Your task to perform on an android device: Open calendar and show me the second week of next month Image 0: 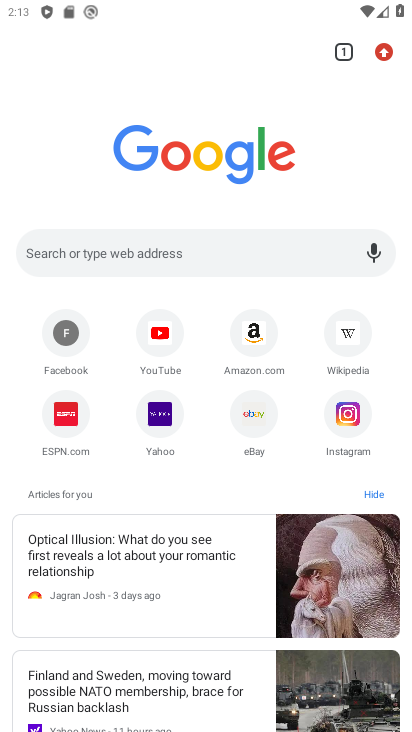
Step 0: press back button
Your task to perform on an android device: Open calendar and show me the second week of next month Image 1: 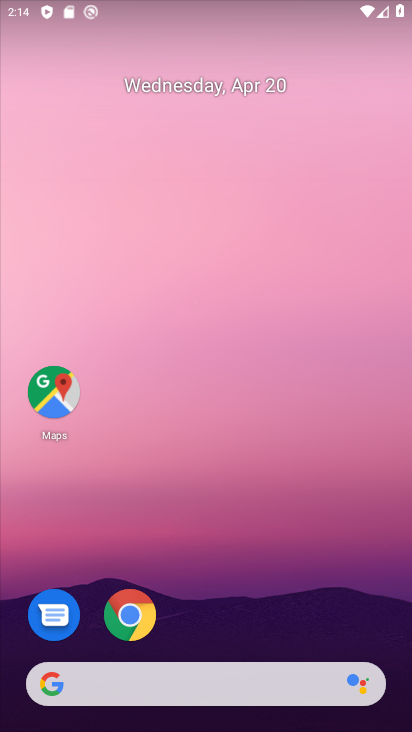
Step 1: click (242, 474)
Your task to perform on an android device: Open calendar and show me the second week of next month Image 2: 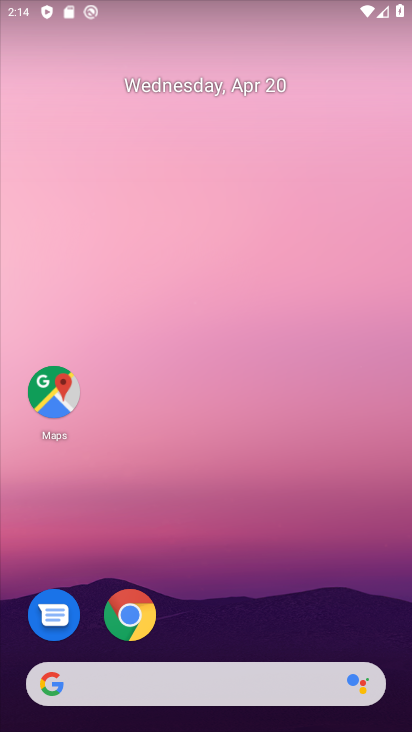
Step 2: drag from (221, 616) to (317, 133)
Your task to perform on an android device: Open calendar and show me the second week of next month Image 3: 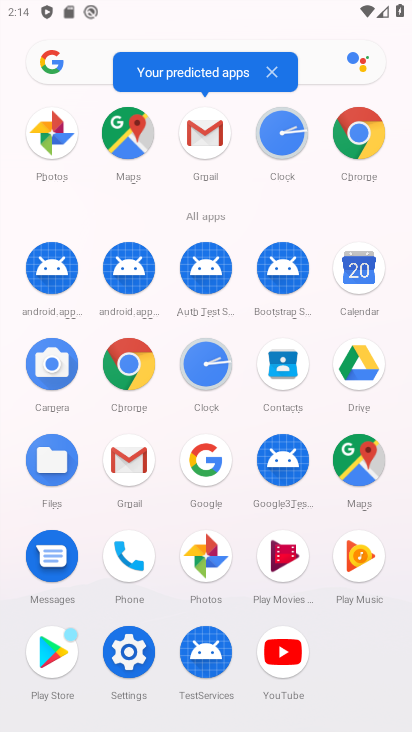
Step 3: click (356, 279)
Your task to perform on an android device: Open calendar and show me the second week of next month Image 4: 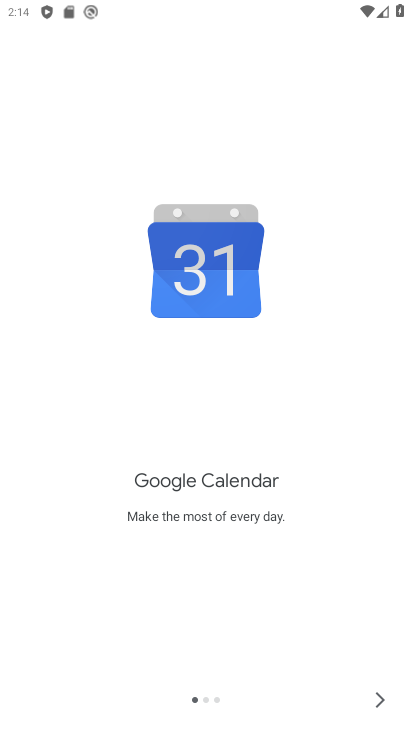
Step 4: click (391, 689)
Your task to perform on an android device: Open calendar and show me the second week of next month Image 5: 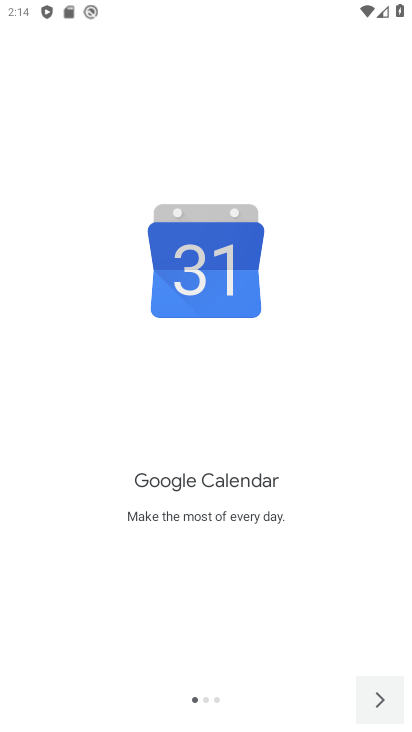
Step 5: click (391, 689)
Your task to perform on an android device: Open calendar and show me the second week of next month Image 6: 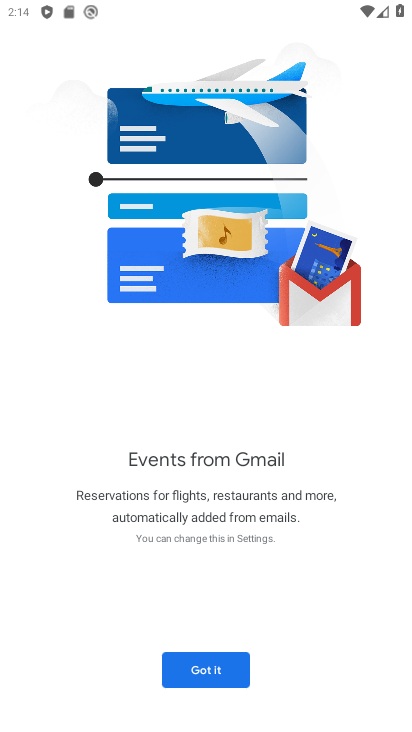
Step 6: click (198, 667)
Your task to perform on an android device: Open calendar and show me the second week of next month Image 7: 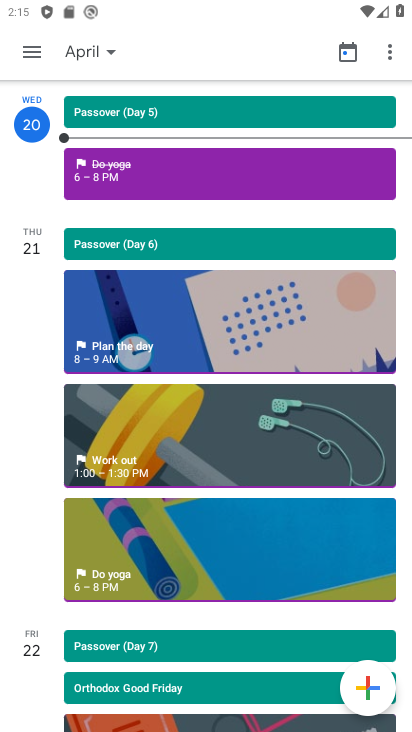
Step 7: click (97, 56)
Your task to perform on an android device: Open calendar and show me the second week of next month Image 8: 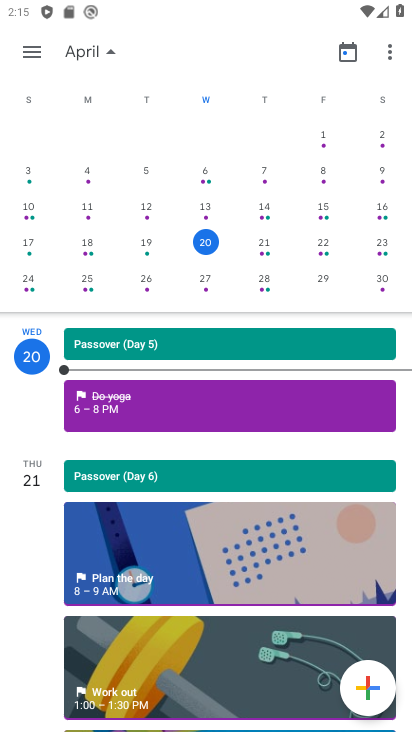
Step 8: drag from (348, 237) to (13, 227)
Your task to perform on an android device: Open calendar and show me the second week of next month Image 9: 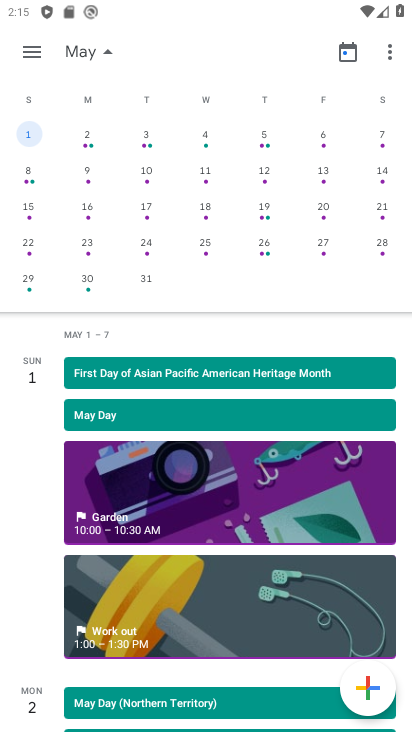
Step 9: click (29, 177)
Your task to perform on an android device: Open calendar and show me the second week of next month Image 10: 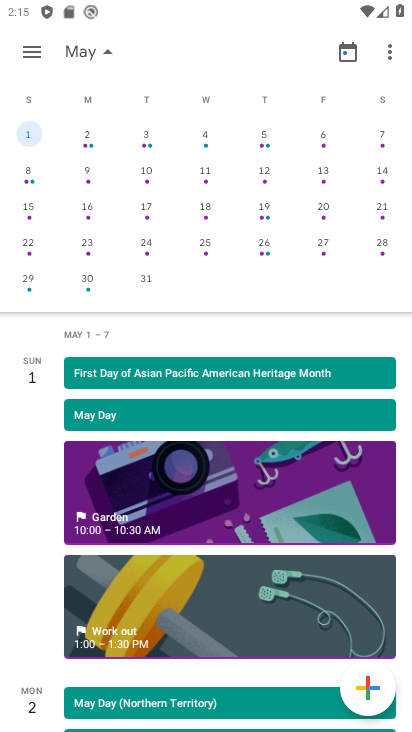
Step 10: click (29, 177)
Your task to perform on an android device: Open calendar and show me the second week of next month Image 11: 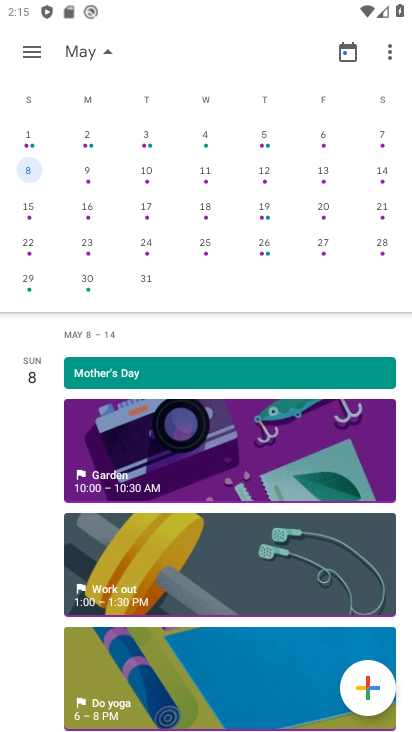
Step 11: click (29, 49)
Your task to perform on an android device: Open calendar and show me the second week of next month Image 12: 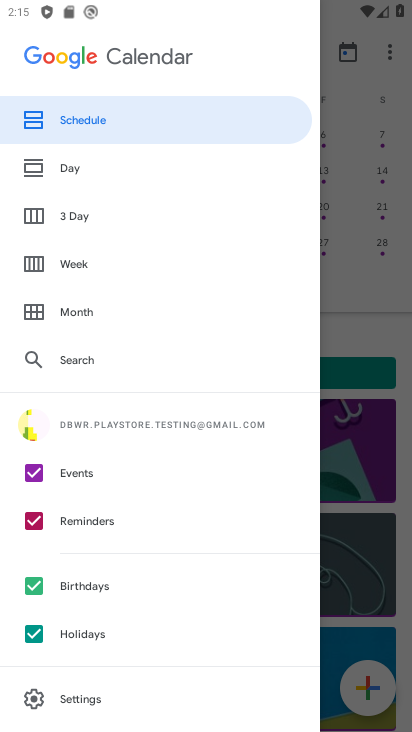
Step 12: click (102, 274)
Your task to perform on an android device: Open calendar and show me the second week of next month Image 13: 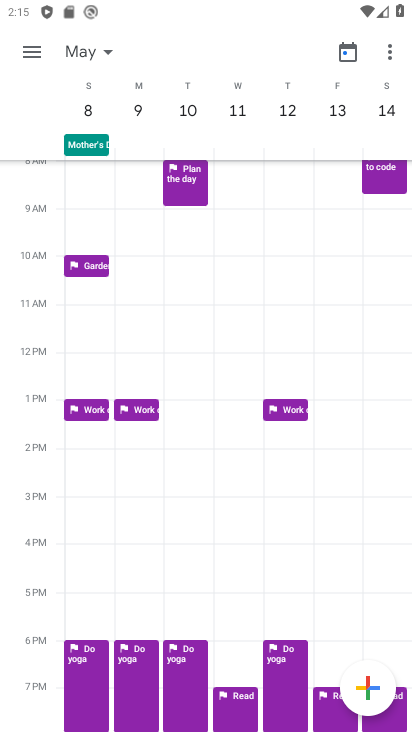
Step 13: task complete